Your task to perform on an android device: open chrome privacy settings Image 0: 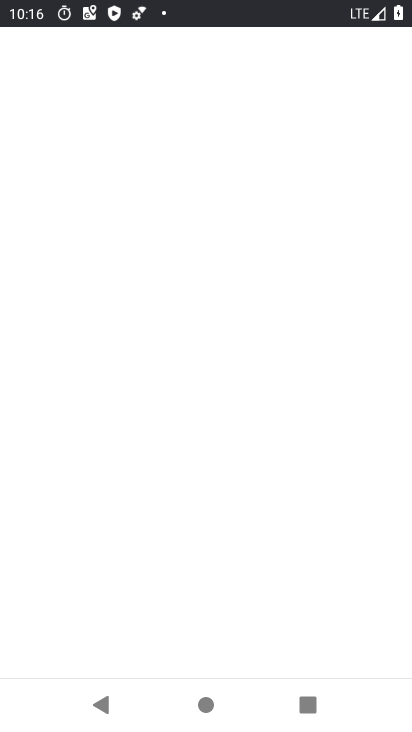
Step 0: drag from (308, 588) to (359, 333)
Your task to perform on an android device: open chrome privacy settings Image 1: 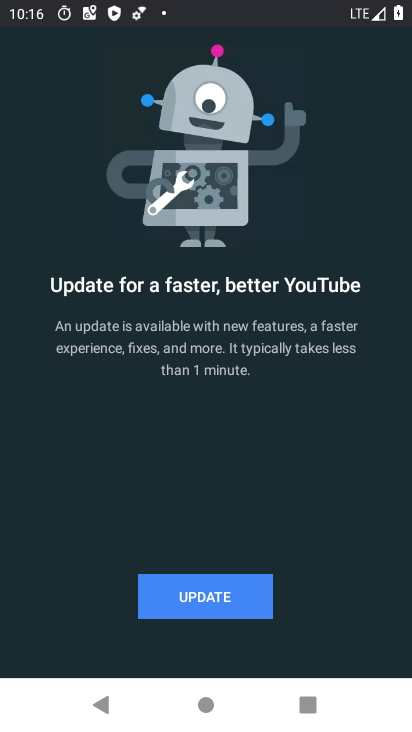
Step 1: press home button
Your task to perform on an android device: open chrome privacy settings Image 2: 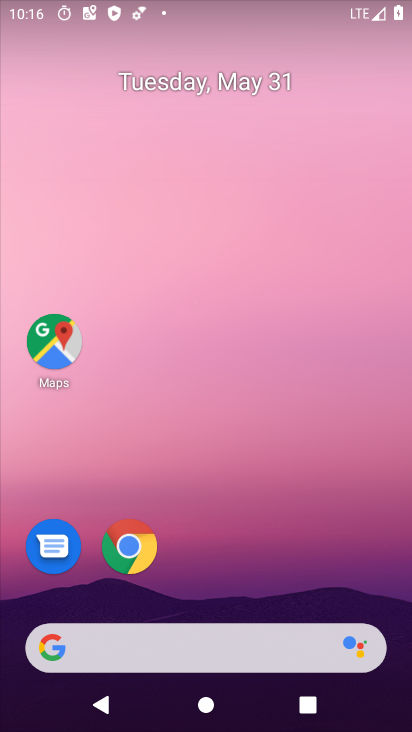
Step 2: click (120, 539)
Your task to perform on an android device: open chrome privacy settings Image 3: 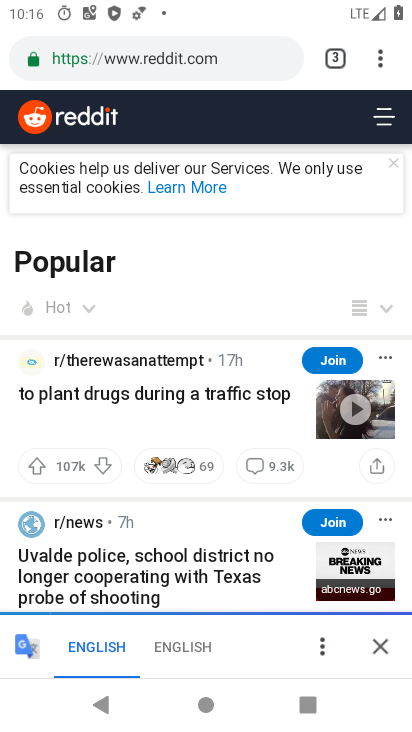
Step 3: click (388, 53)
Your task to perform on an android device: open chrome privacy settings Image 4: 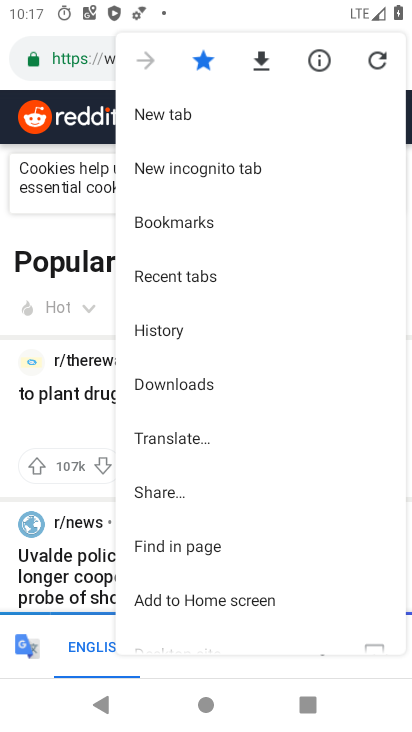
Step 4: drag from (292, 517) to (295, 374)
Your task to perform on an android device: open chrome privacy settings Image 5: 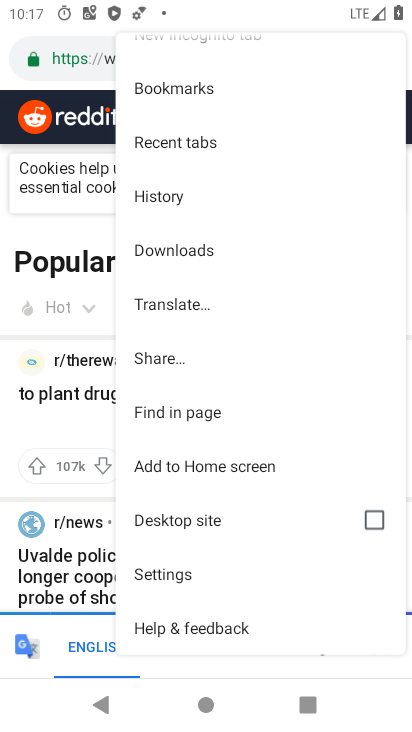
Step 5: click (203, 578)
Your task to perform on an android device: open chrome privacy settings Image 6: 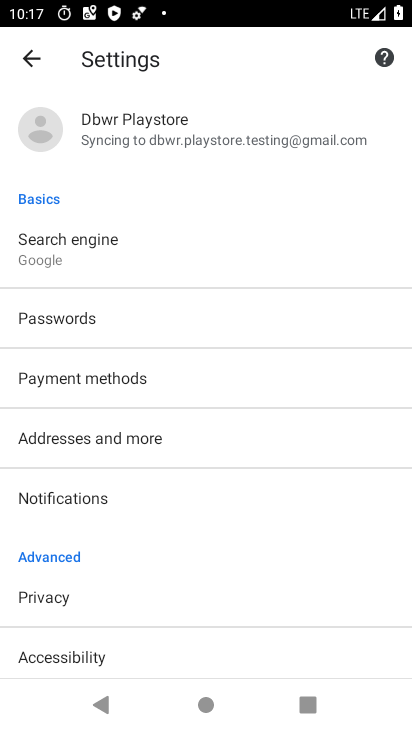
Step 6: click (50, 582)
Your task to perform on an android device: open chrome privacy settings Image 7: 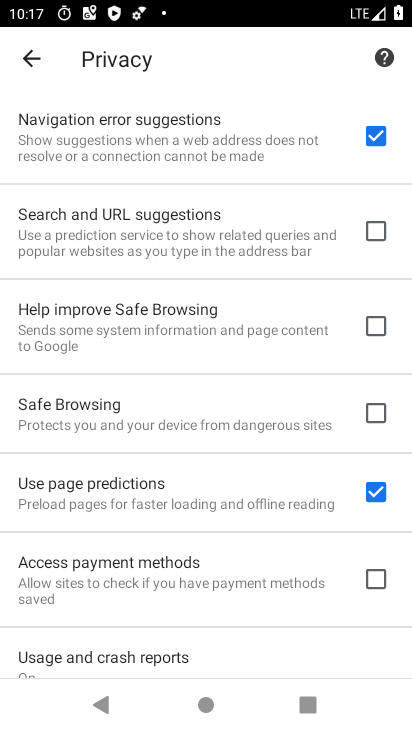
Step 7: task complete